Your task to perform on an android device: What's the weather going to be tomorrow? Image 0: 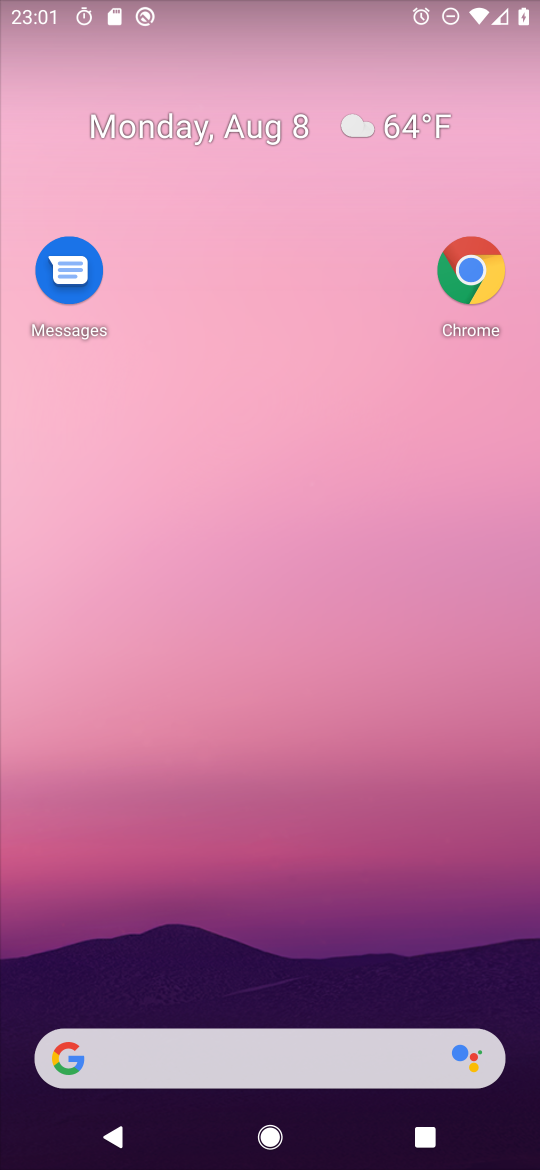
Step 0: drag from (295, 900) to (302, 201)
Your task to perform on an android device: What's the weather going to be tomorrow? Image 1: 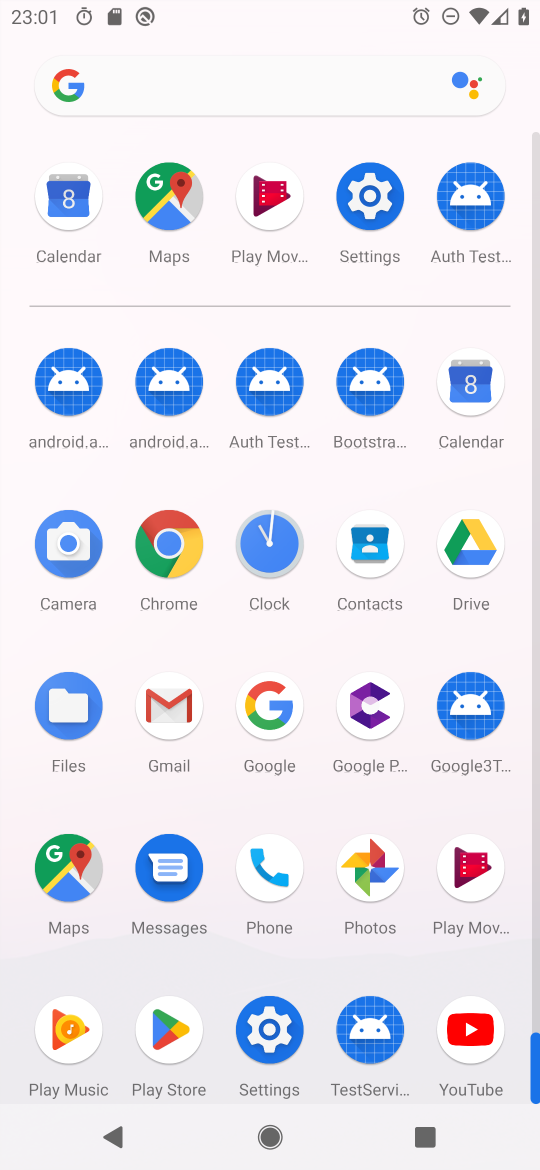
Step 1: click (471, 377)
Your task to perform on an android device: What's the weather going to be tomorrow? Image 2: 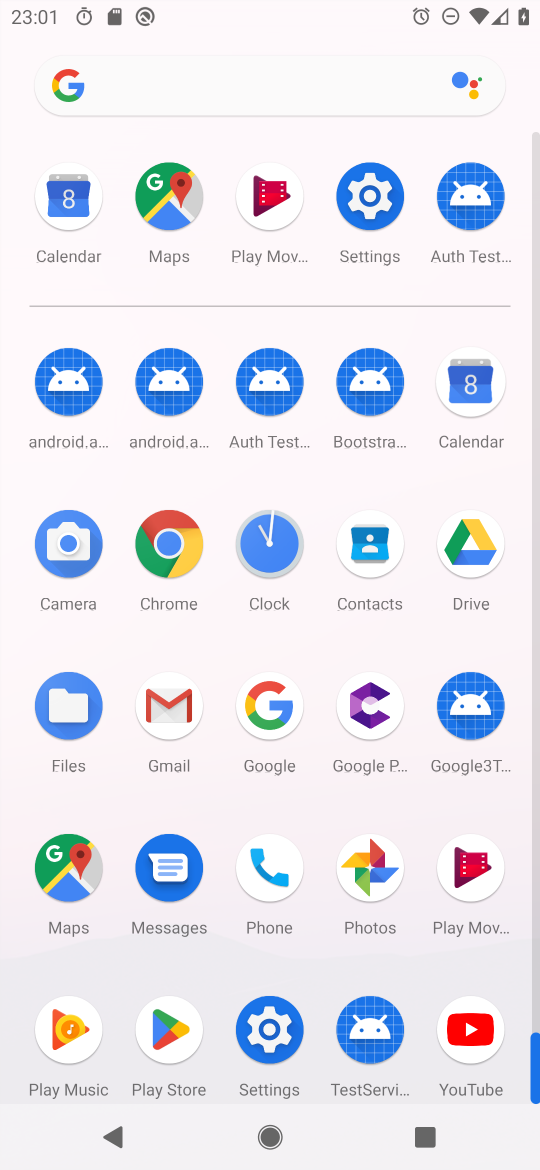
Step 2: click (471, 375)
Your task to perform on an android device: What's the weather going to be tomorrow? Image 3: 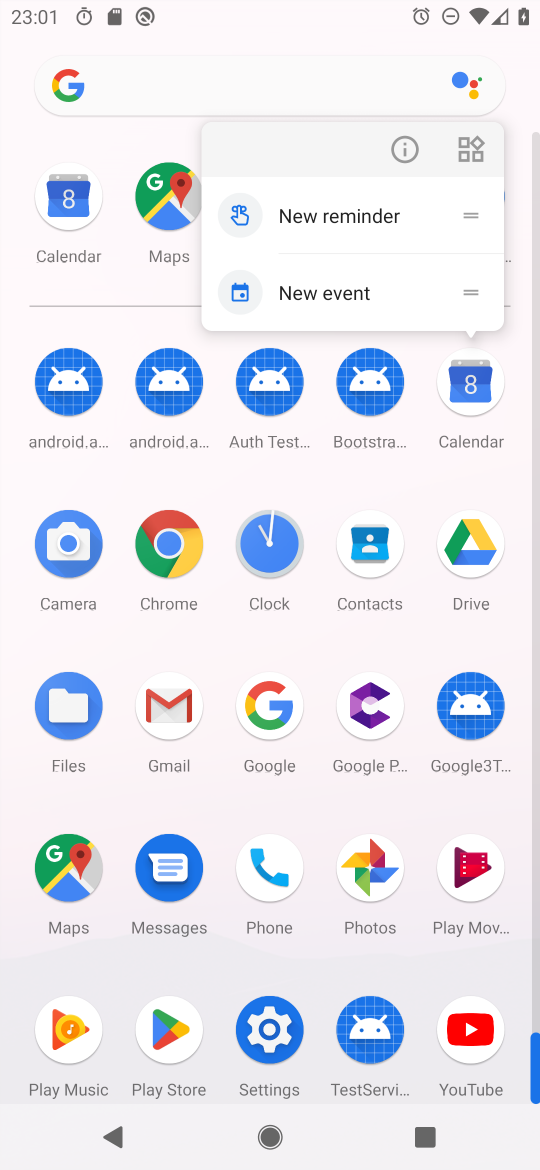
Step 3: click (182, 97)
Your task to perform on an android device: What's the weather going to be tomorrow? Image 4: 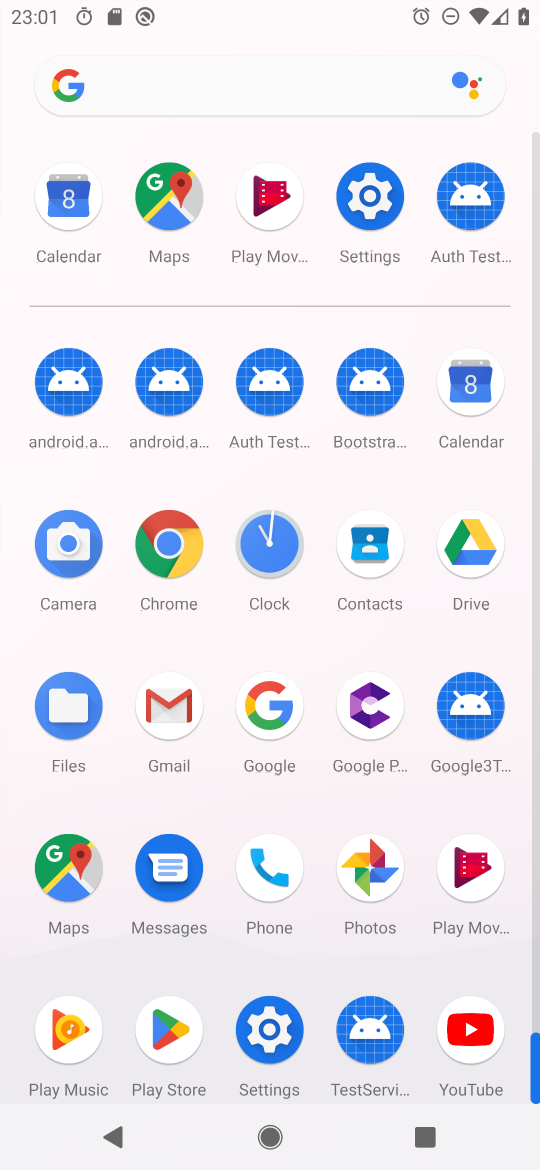
Step 4: click (231, 81)
Your task to perform on an android device: What's the weather going to be tomorrow? Image 5: 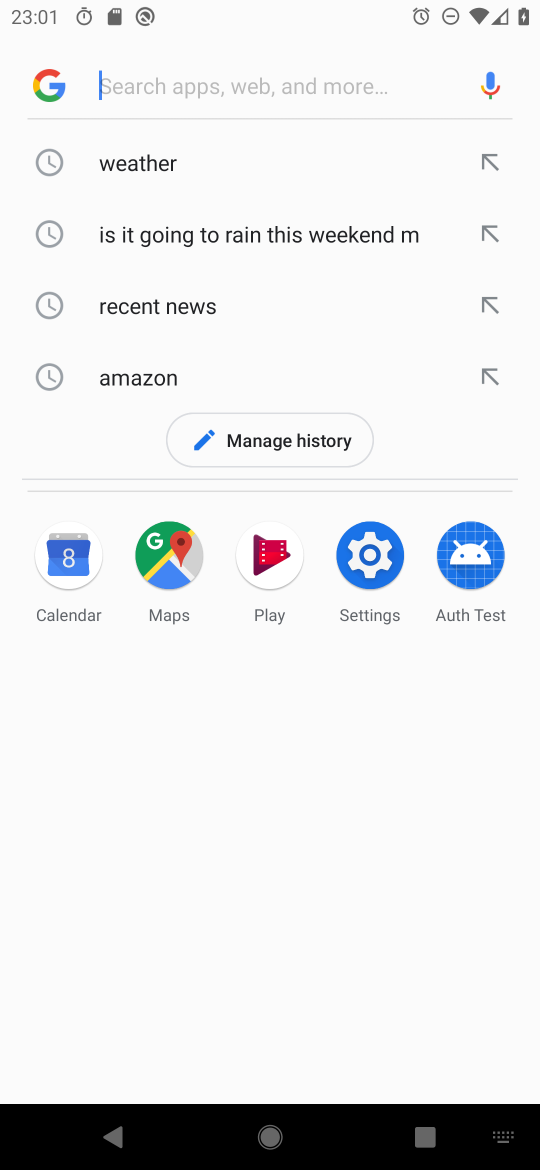
Step 5: type "What's the weather going to be tomorrow?"
Your task to perform on an android device: What's the weather going to be tomorrow? Image 6: 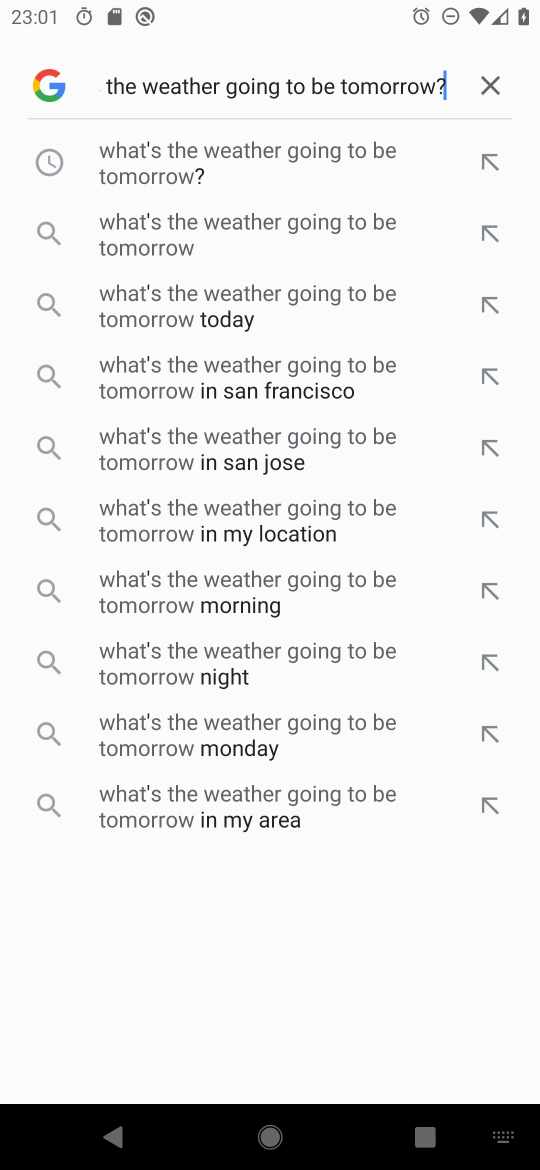
Step 6: type ""
Your task to perform on an android device: What's the weather going to be tomorrow? Image 7: 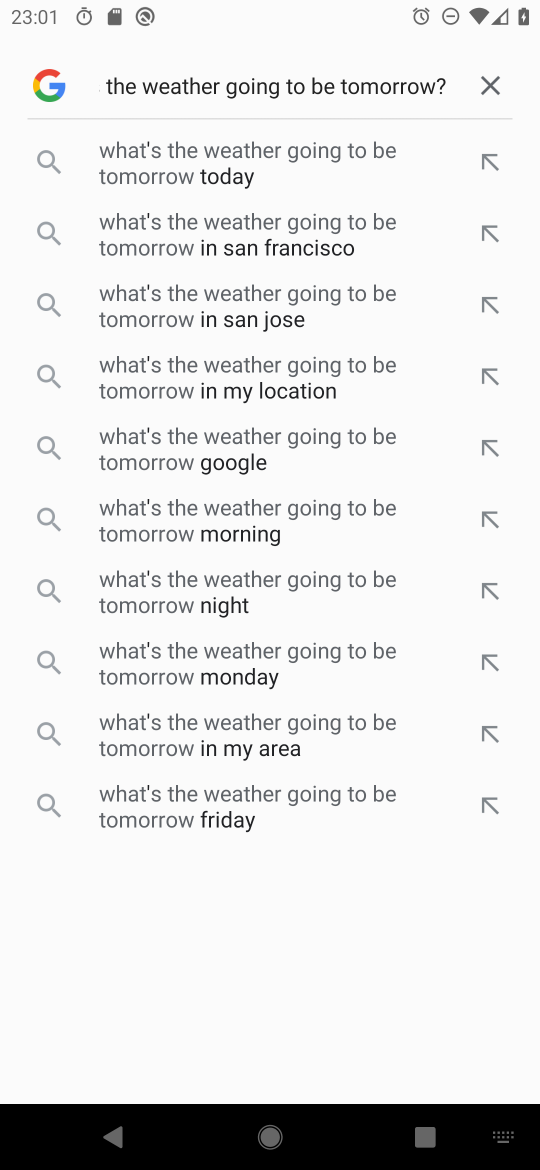
Step 7: click (166, 168)
Your task to perform on an android device: What's the weather going to be tomorrow? Image 8: 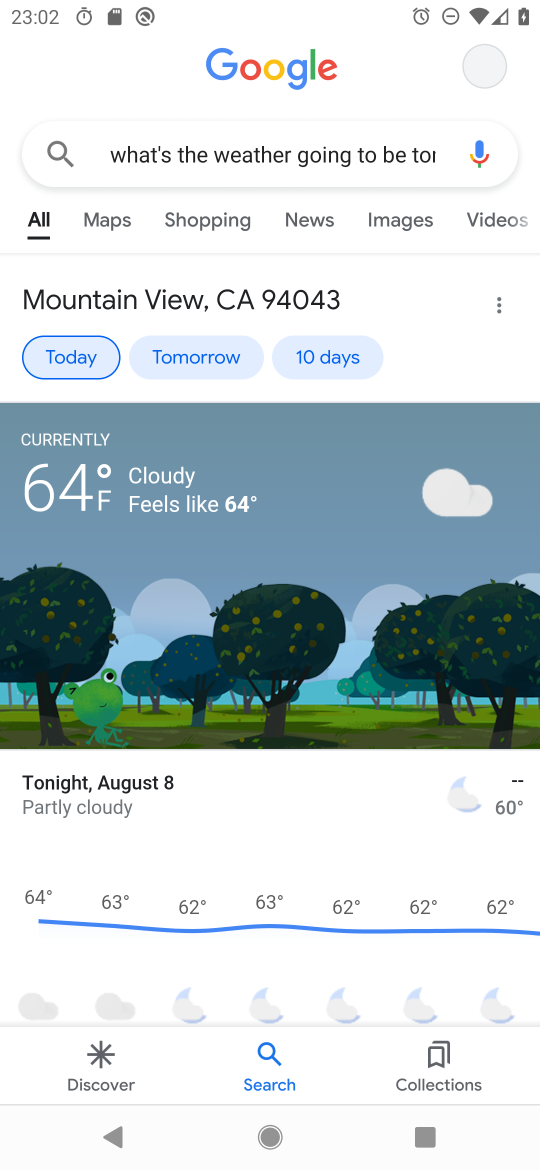
Step 8: task complete